Your task to perform on an android device: set an alarm Image 0: 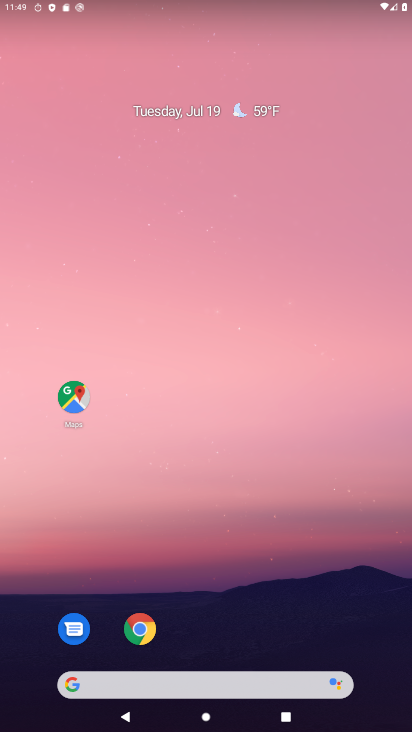
Step 0: drag from (289, 540) to (0, 53)
Your task to perform on an android device: set an alarm Image 1: 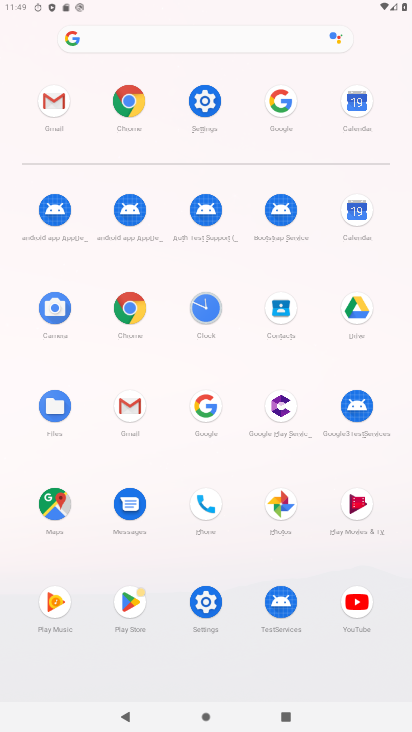
Step 1: click (213, 308)
Your task to perform on an android device: set an alarm Image 2: 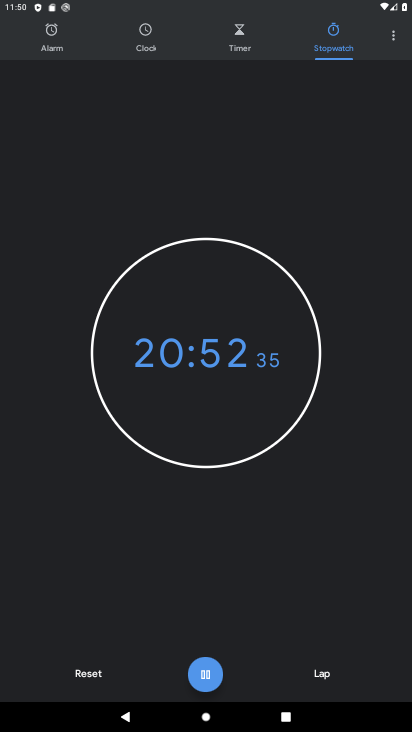
Step 2: click (36, 51)
Your task to perform on an android device: set an alarm Image 3: 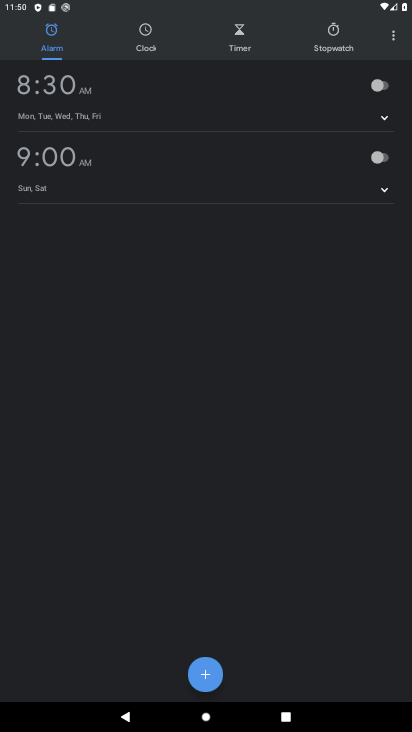
Step 3: click (392, 87)
Your task to perform on an android device: set an alarm Image 4: 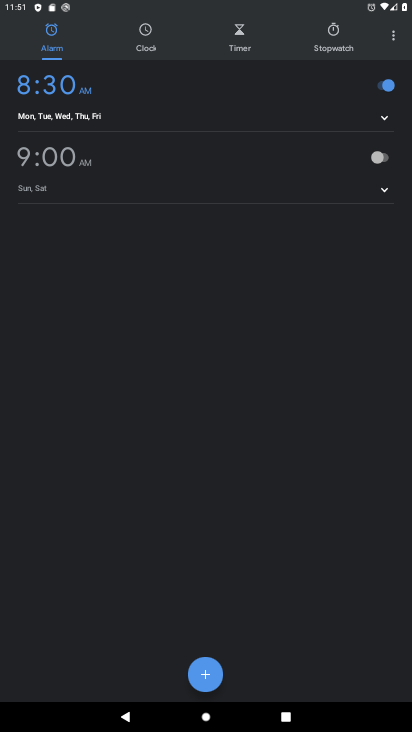
Step 4: task complete